Your task to perform on an android device: What's on my calendar today? Image 0: 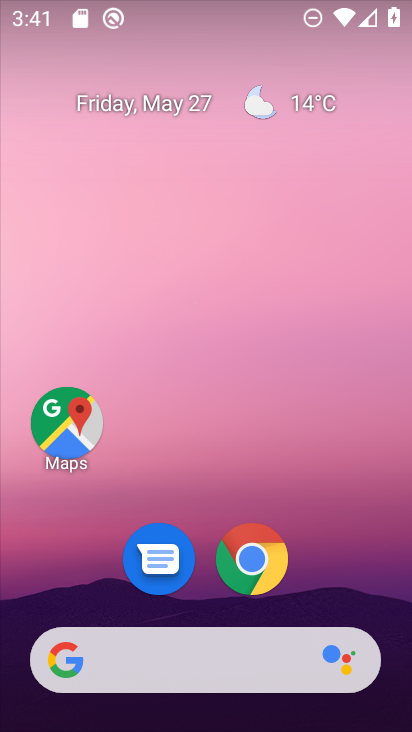
Step 0: drag from (329, 602) to (281, 167)
Your task to perform on an android device: What's on my calendar today? Image 1: 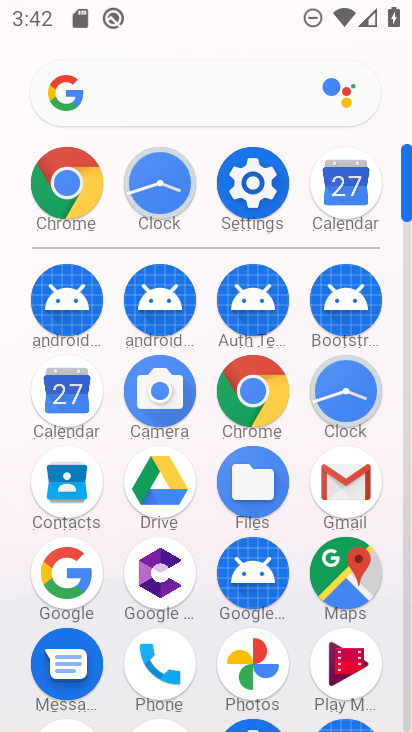
Step 1: click (62, 408)
Your task to perform on an android device: What's on my calendar today? Image 2: 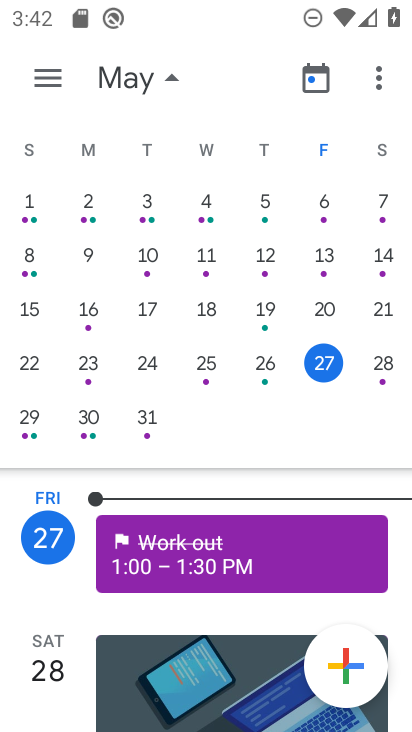
Step 2: click (324, 366)
Your task to perform on an android device: What's on my calendar today? Image 3: 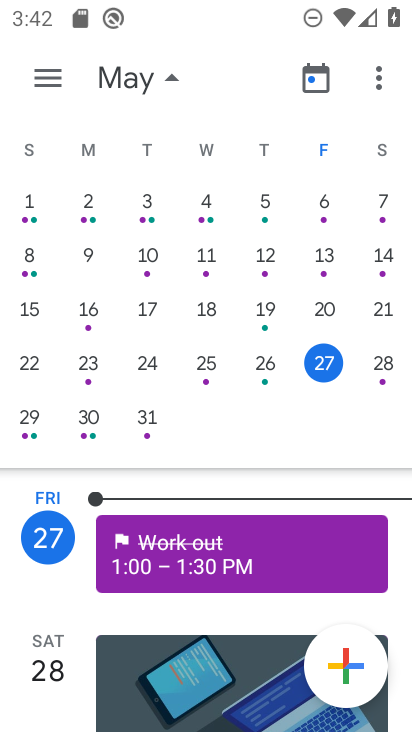
Step 3: task complete